Your task to perform on an android device: Open settings Image 0: 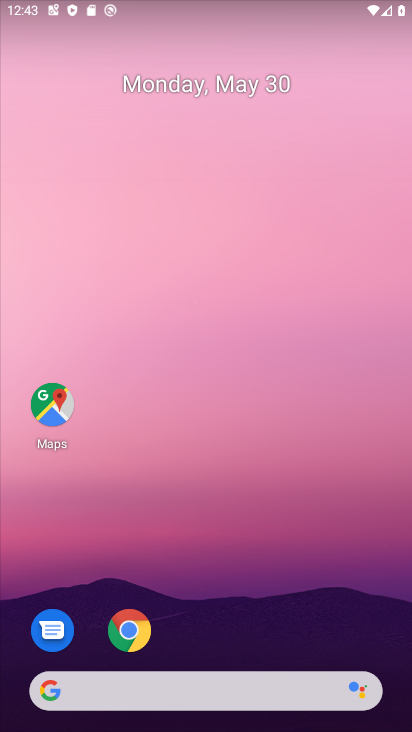
Step 0: drag from (217, 653) to (264, 78)
Your task to perform on an android device: Open settings Image 1: 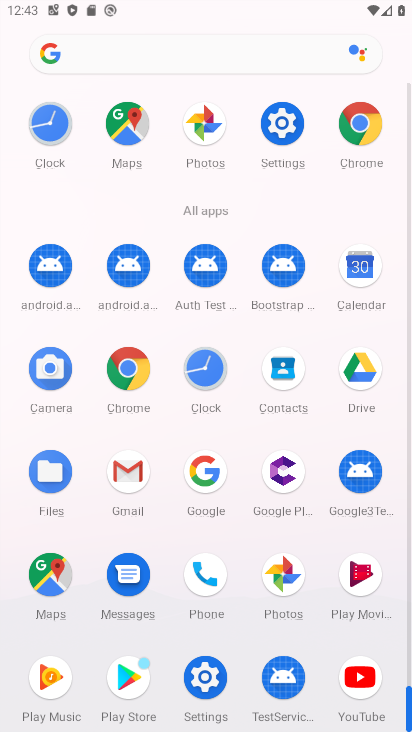
Step 1: drag from (280, 582) to (280, 454)
Your task to perform on an android device: Open settings Image 2: 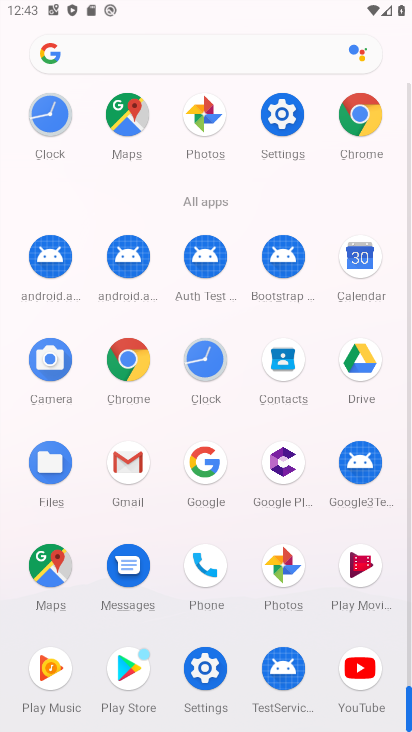
Step 2: click (245, 671)
Your task to perform on an android device: Open settings Image 3: 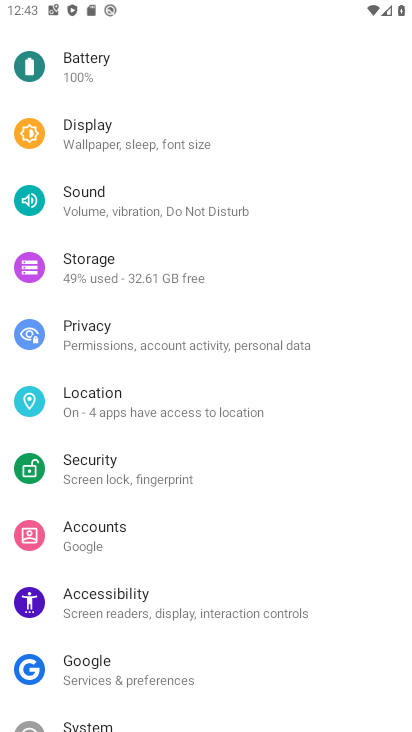
Step 3: task complete